Your task to perform on an android device: turn vacation reply on in the gmail app Image 0: 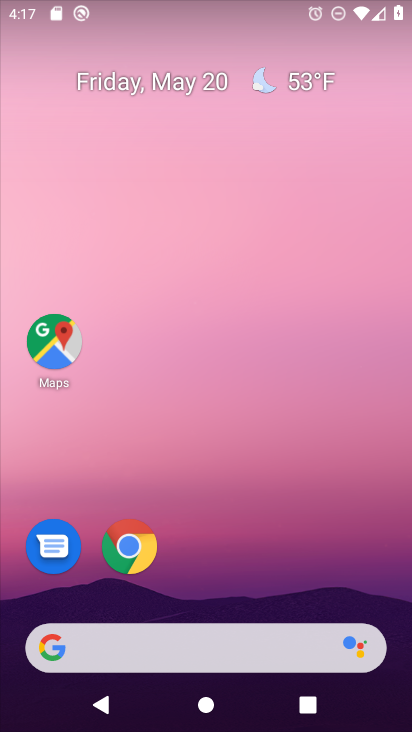
Step 0: drag from (243, 576) to (241, 104)
Your task to perform on an android device: turn vacation reply on in the gmail app Image 1: 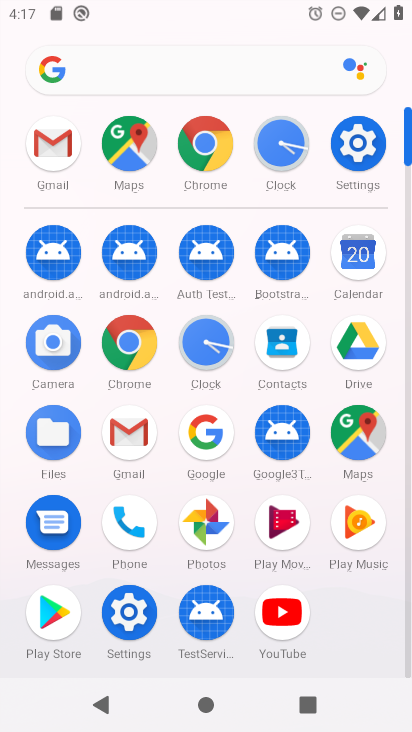
Step 1: click (57, 156)
Your task to perform on an android device: turn vacation reply on in the gmail app Image 2: 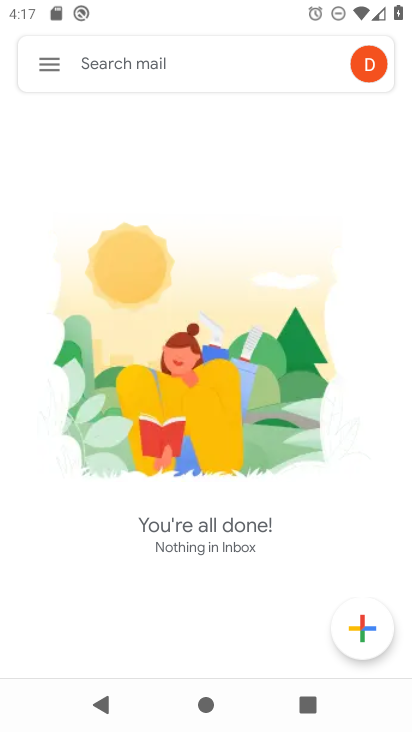
Step 2: click (34, 57)
Your task to perform on an android device: turn vacation reply on in the gmail app Image 3: 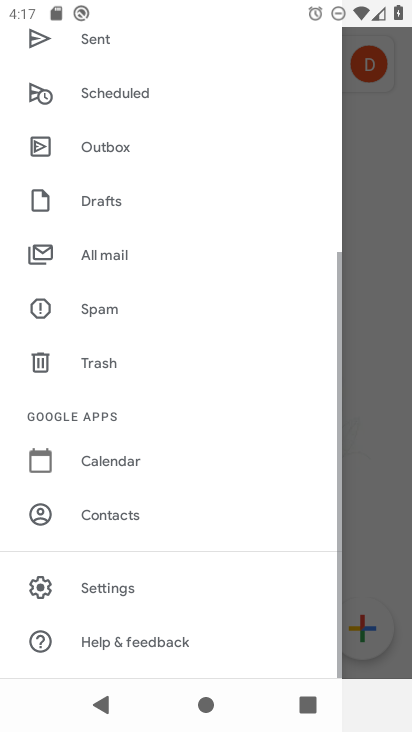
Step 3: click (110, 596)
Your task to perform on an android device: turn vacation reply on in the gmail app Image 4: 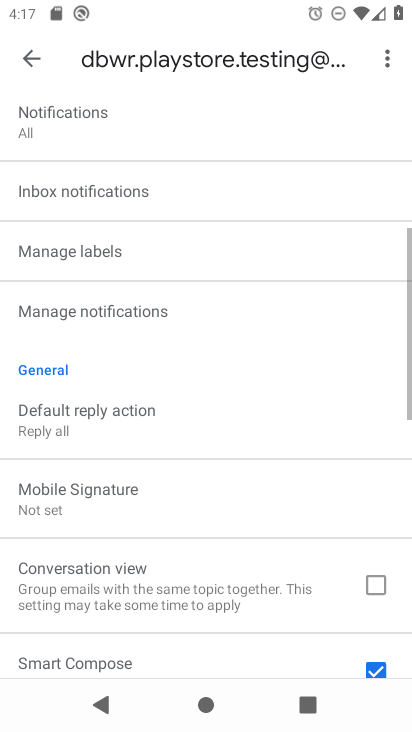
Step 4: drag from (147, 196) to (170, 706)
Your task to perform on an android device: turn vacation reply on in the gmail app Image 5: 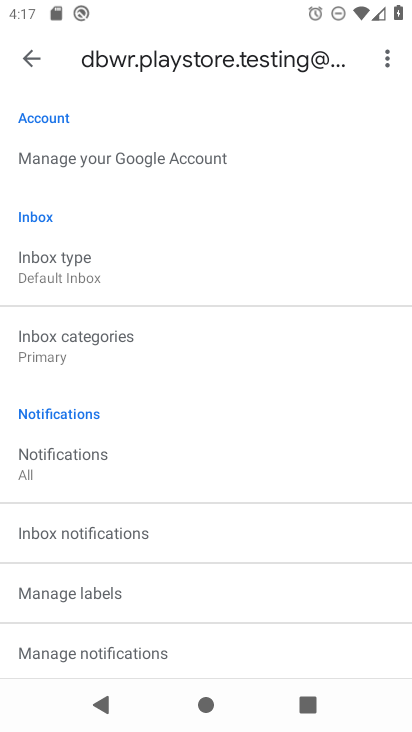
Step 5: click (101, 278)
Your task to perform on an android device: turn vacation reply on in the gmail app Image 6: 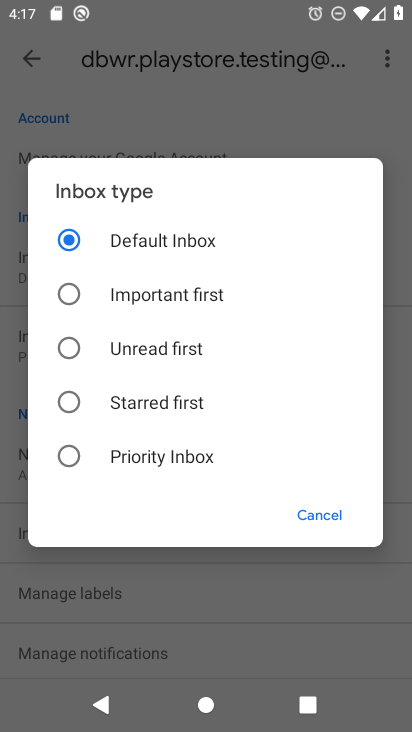
Step 6: click (260, 133)
Your task to perform on an android device: turn vacation reply on in the gmail app Image 7: 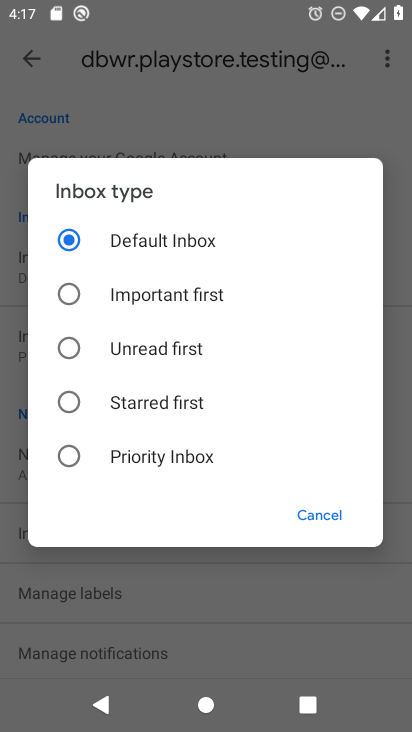
Step 7: click (318, 517)
Your task to perform on an android device: turn vacation reply on in the gmail app Image 8: 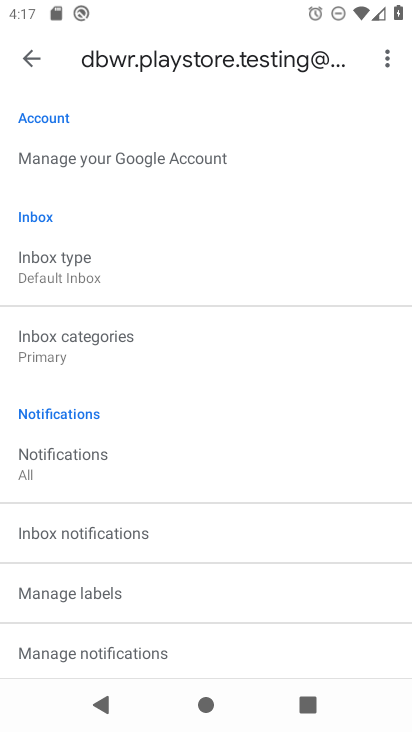
Step 8: drag from (237, 571) to (240, 0)
Your task to perform on an android device: turn vacation reply on in the gmail app Image 9: 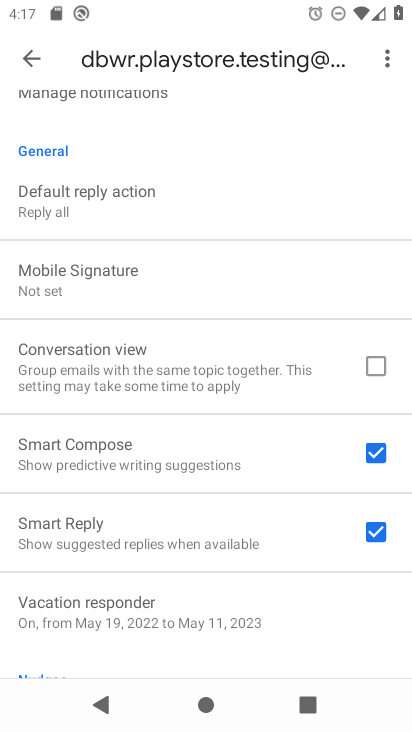
Step 9: click (183, 605)
Your task to perform on an android device: turn vacation reply on in the gmail app Image 10: 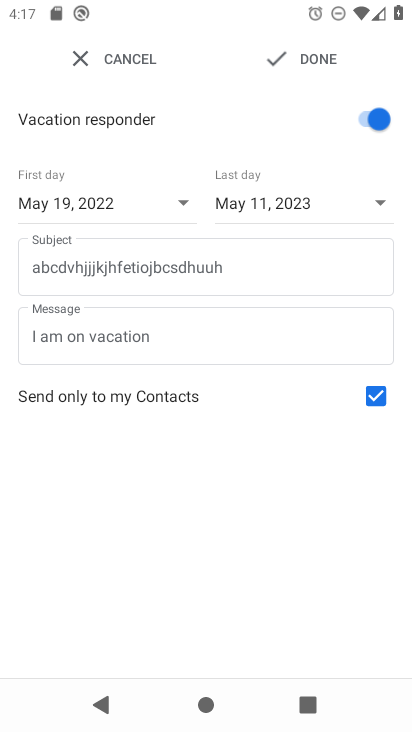
Step 10: task complete